Your task to perform on an android device: turn on wifi Image 0: 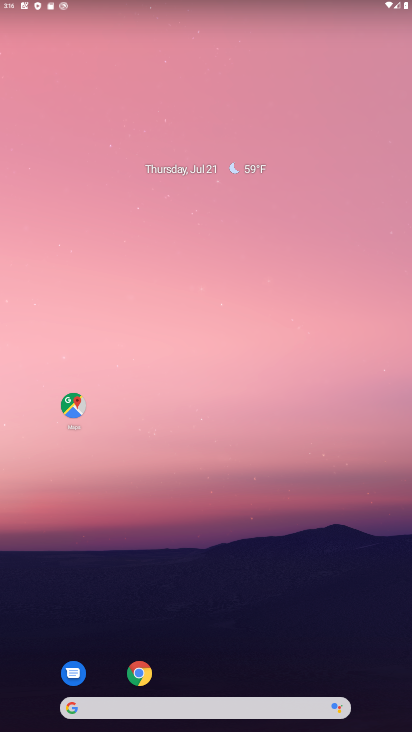
Step 0: drag from (396, 666) to (268, 40)
Your task to perform on an android device: turn on wifi Image 1: 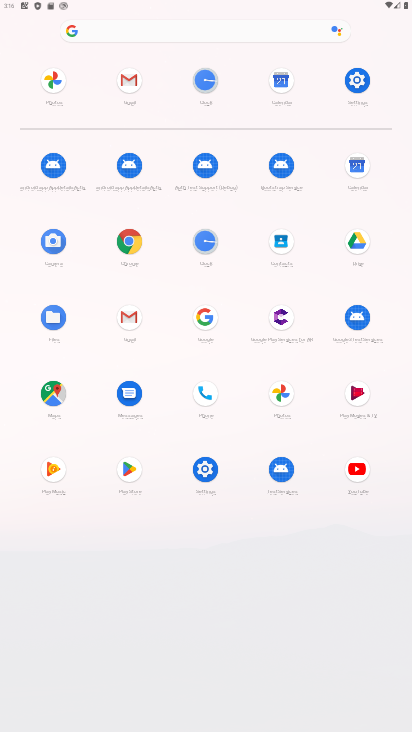
Step 1: click (206, 466)
Your task to perform on an android device: turn on wifi Image 2: 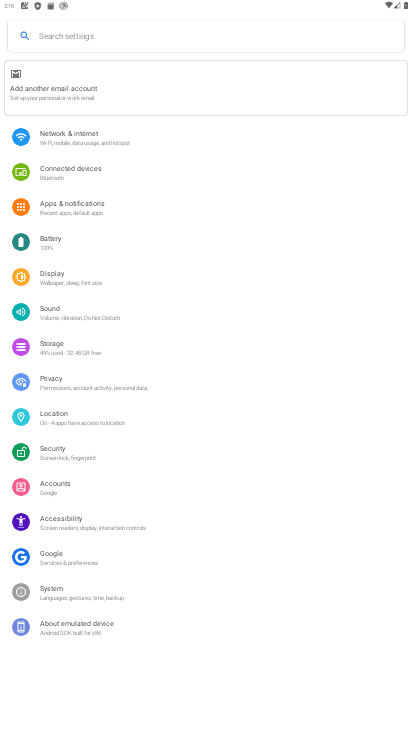
Step 2: click (78, 136)
Your task to perform on an android device: turn on wifi Image 3: 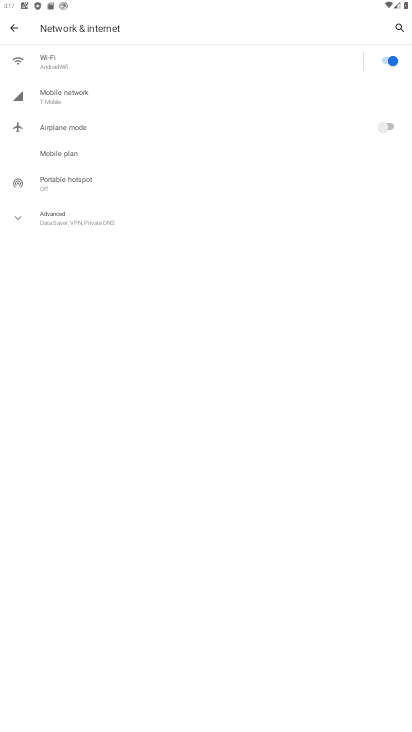
Step 3: task complete